Your task to perform on an android device: open app "McDonald's" Image 0: 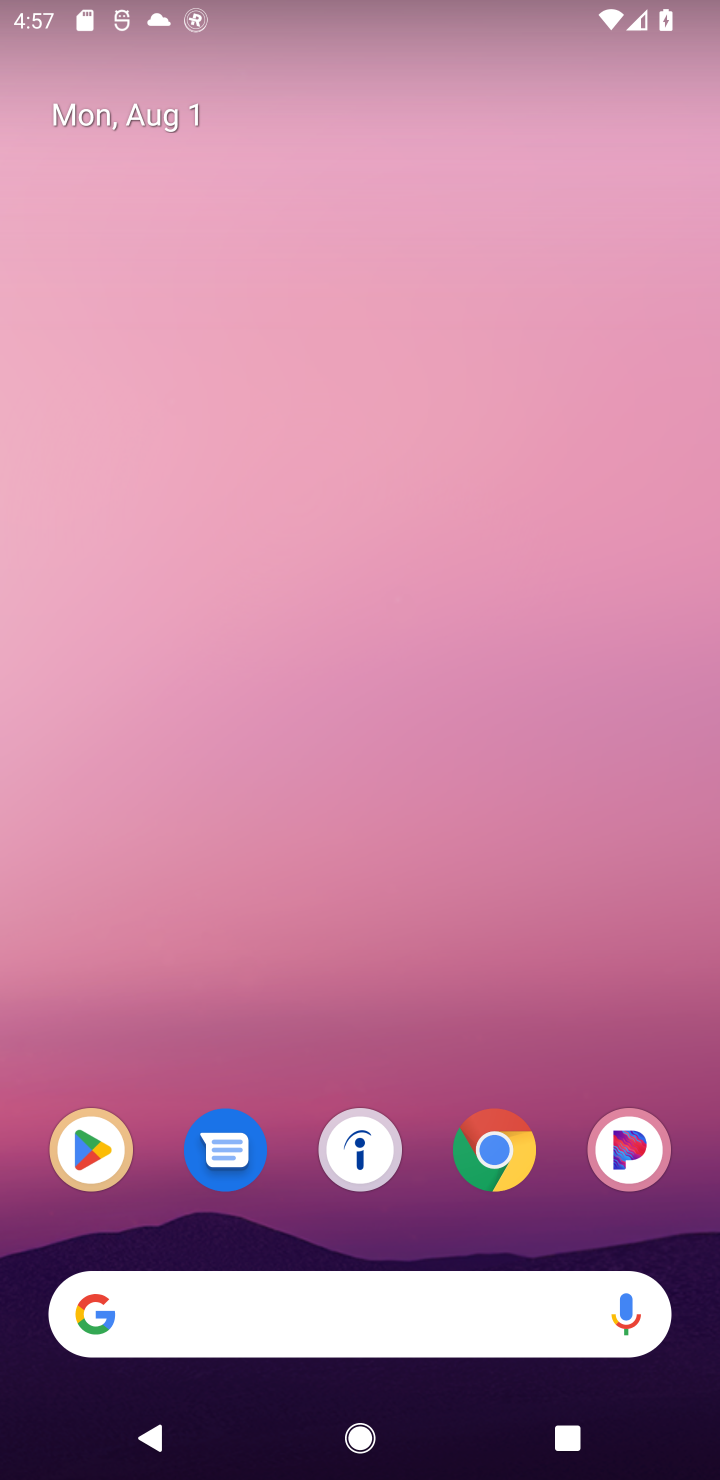
Step 0: click (598, 224)
Your task to perform on an android device: open app "McDonald's" Image 1: 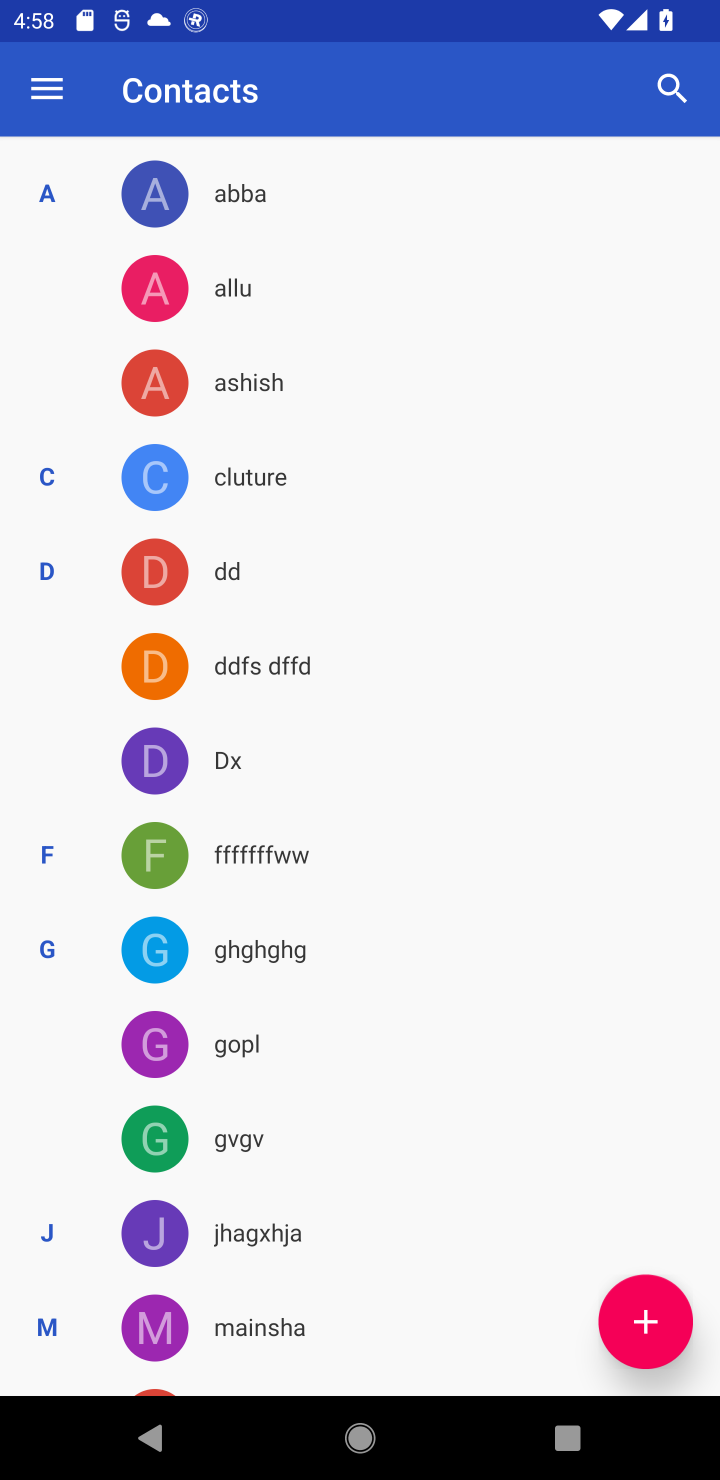
Step 1: press home button
Your task to perform on an android device: open app "McDonald's" Image 2: 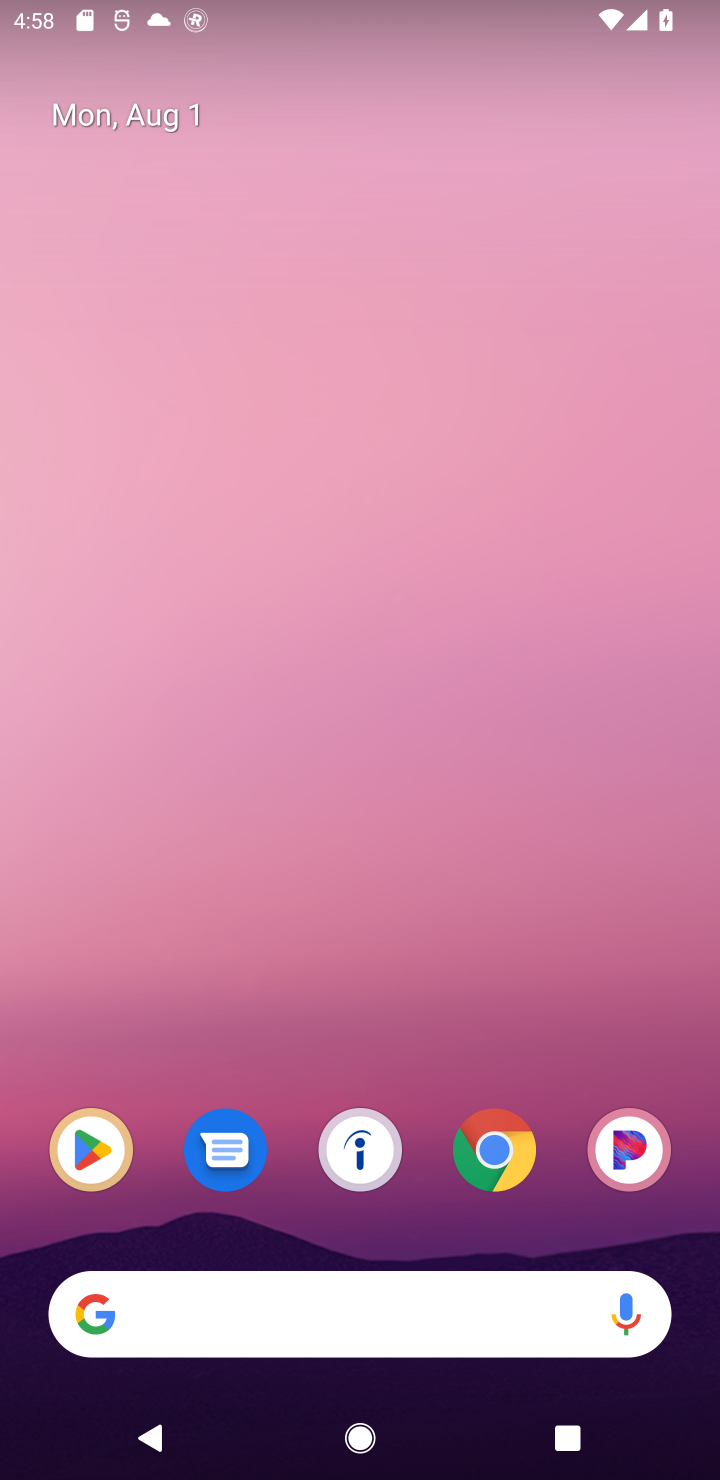
Step 2: drag from (297, 1233) to (394, 40)
Your task to perform on an android device: open app "McDonald's" Image 3: 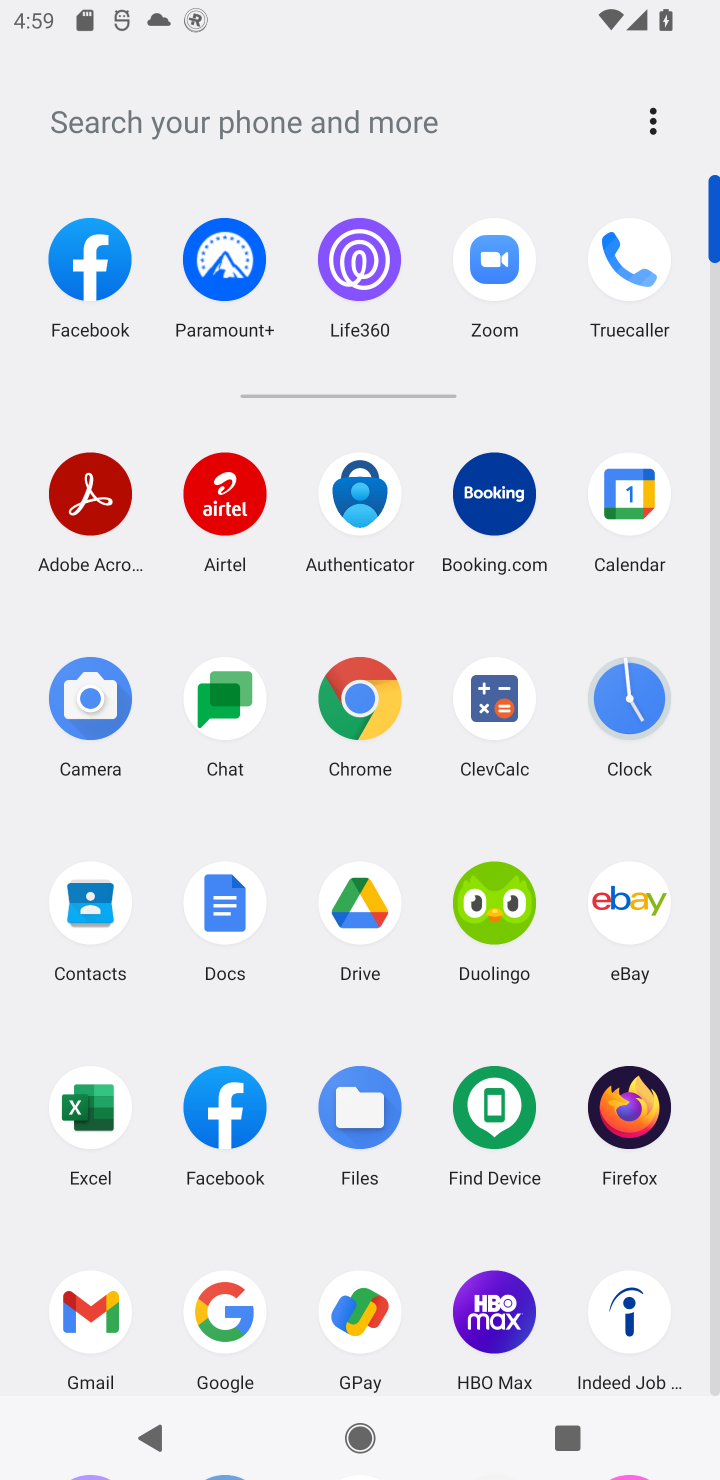
Step 3: click (399, 148)
Your task to perform on an android device: open app "McDonald's" Image 4: 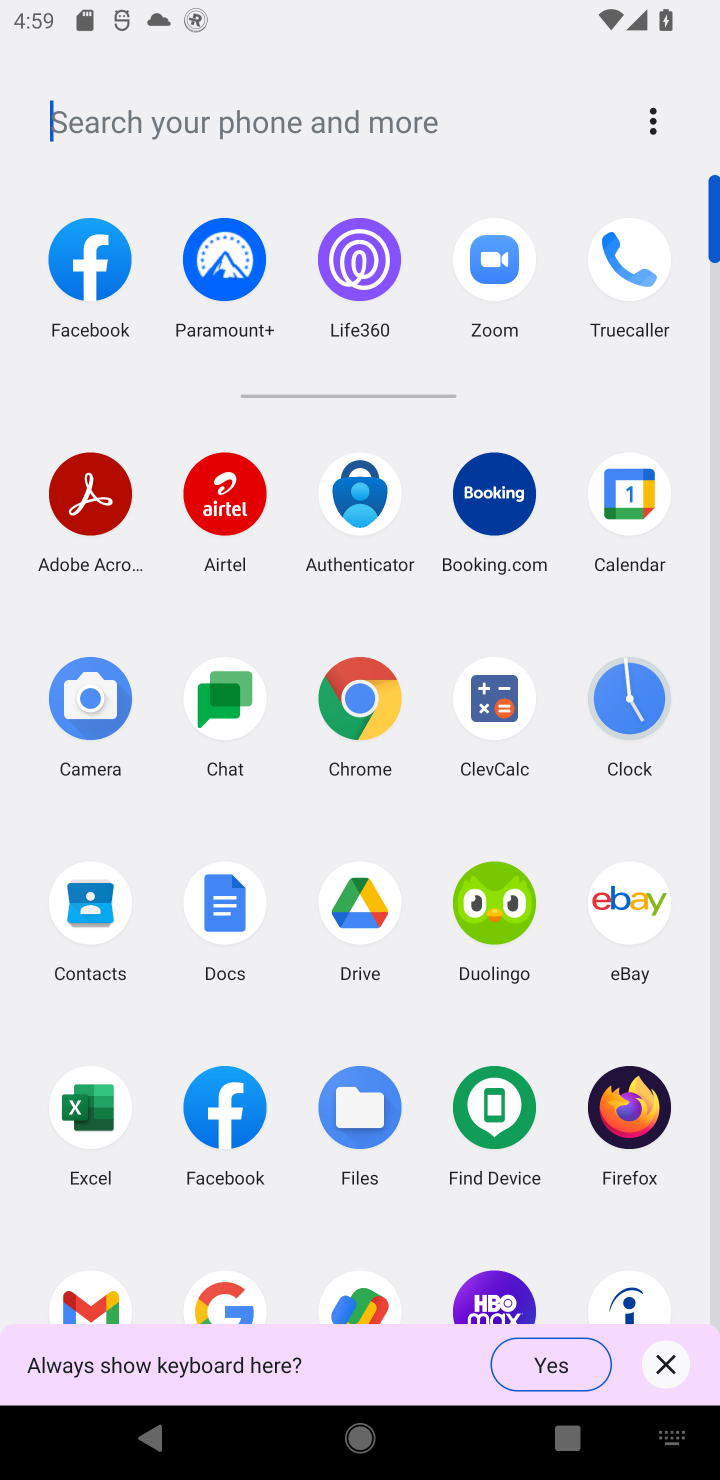
Step 4: click (399, 148)
Your task to perform on an android device: open app "McDonald's" Image 5: 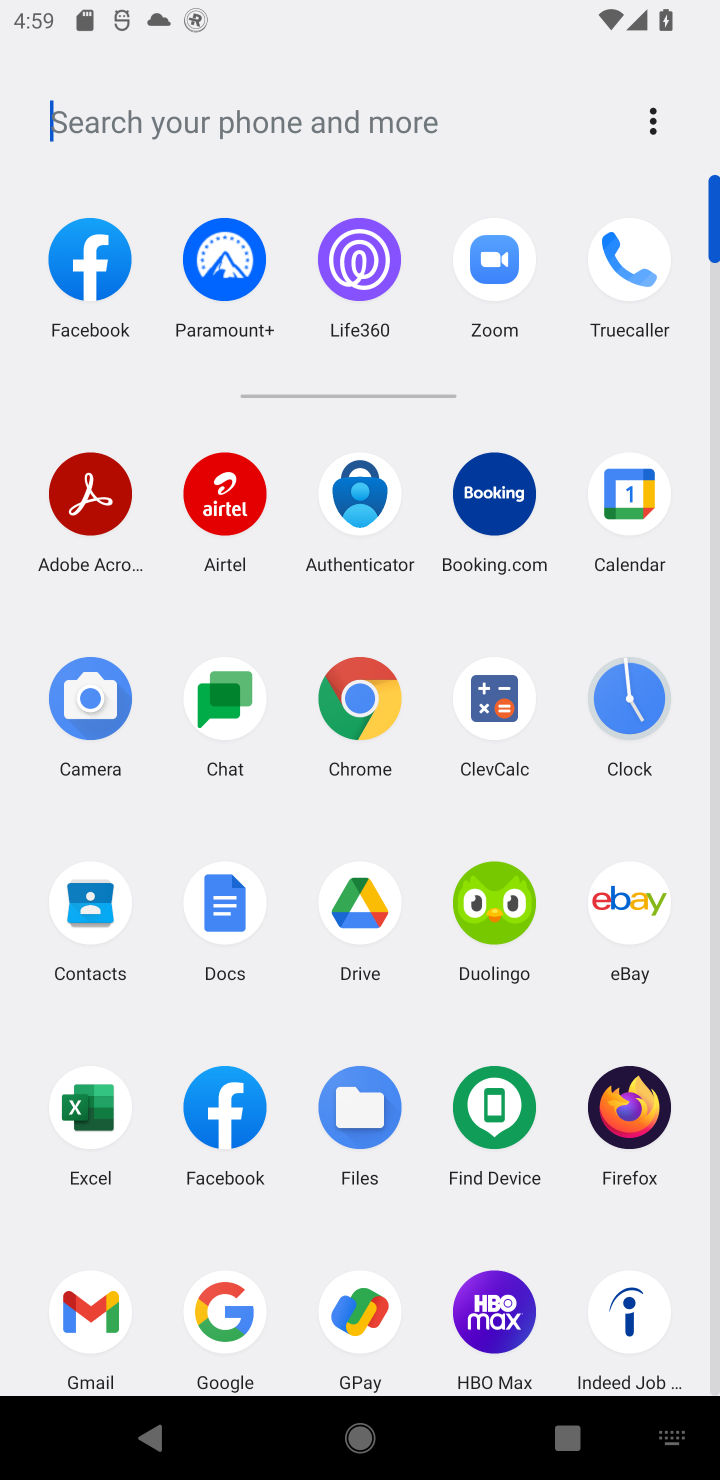
Step 5: type "mcdoland"
Your task to perform on an android device: open app "McDonald's" Image 6: 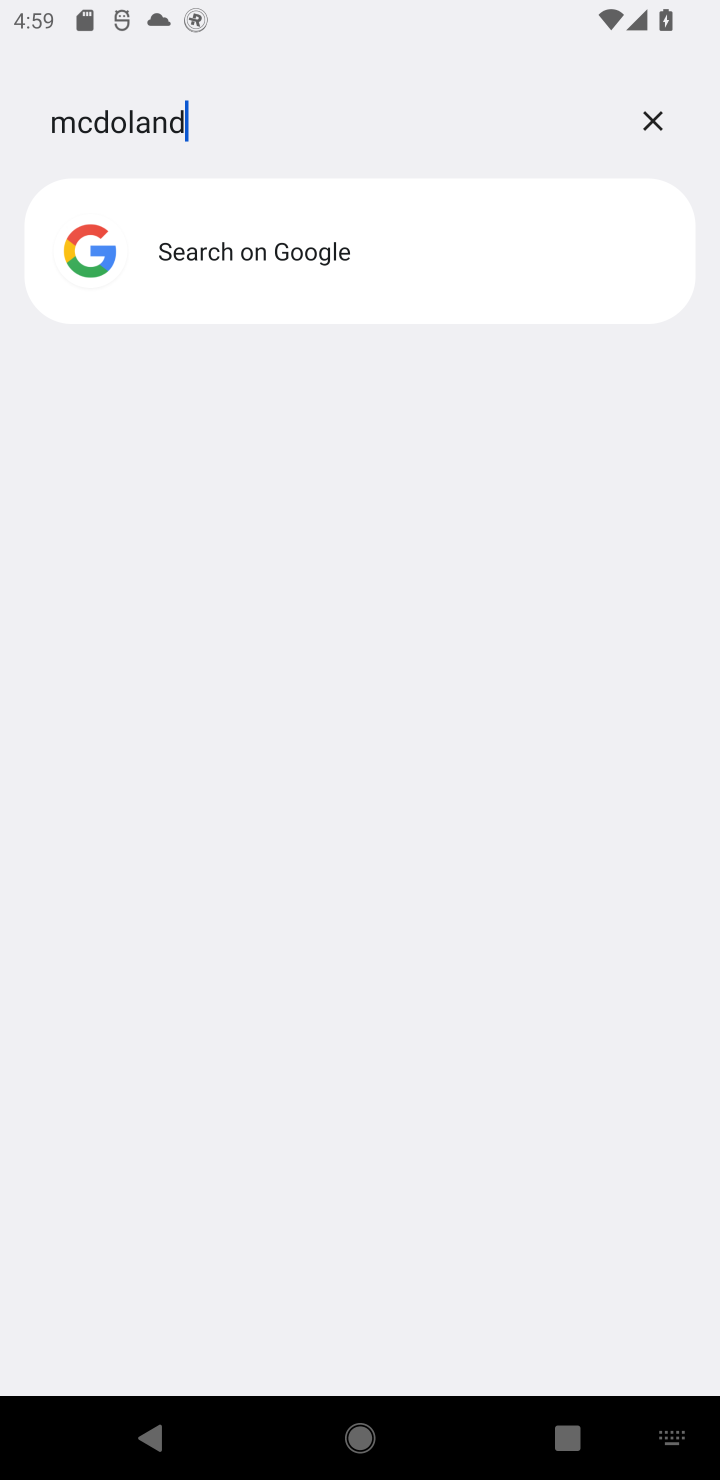
Step 6: click (412, 163)
Your task to perform on an android device: open app "McDonald's" Image 7: 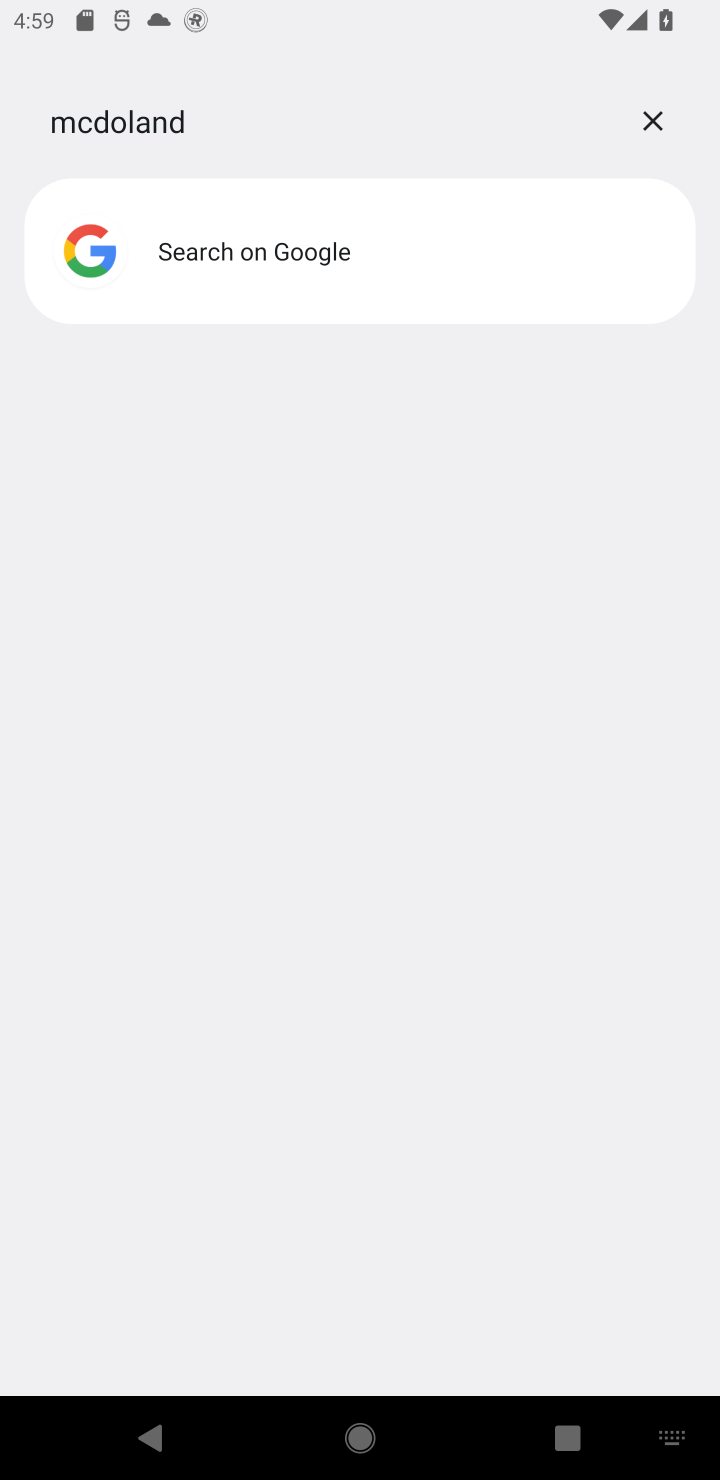
Step 7: click (412, 163)
Your task to perform on an android device: open app "McDonald's" Image 8: 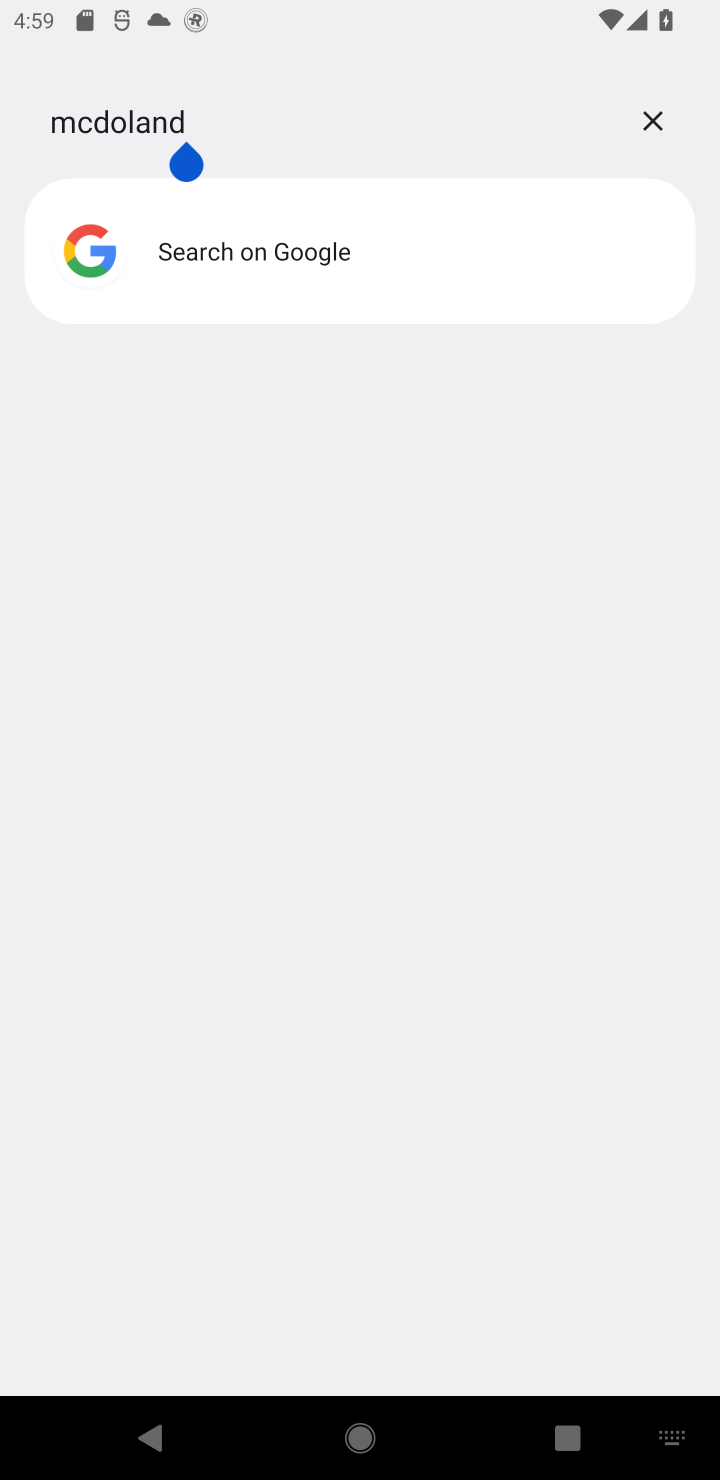
Step 8: click (662, 121)
Your task to perform on an android device: open app "McDonald's" Image 9: 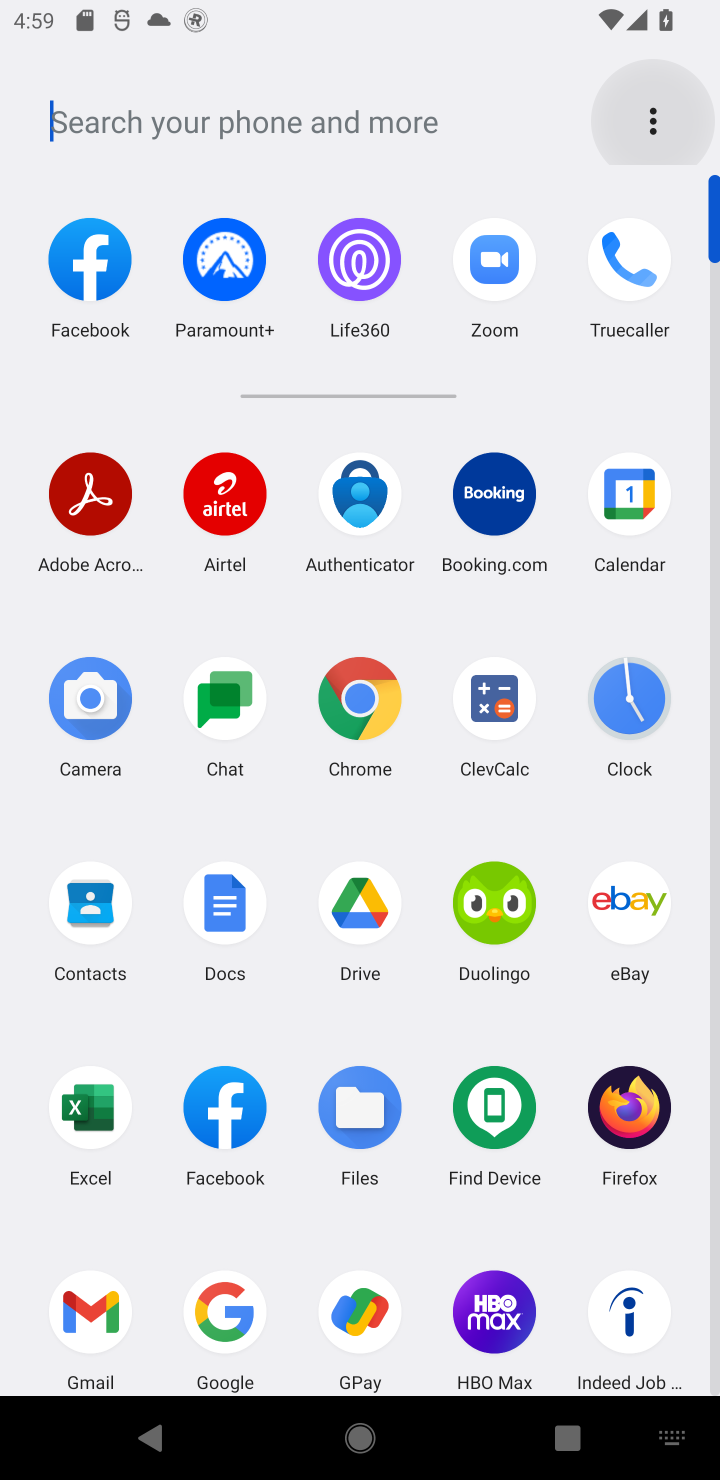
Step 9: click (662, 121)
Your task to perform on an android device: open app "McDonald's" Image 10: 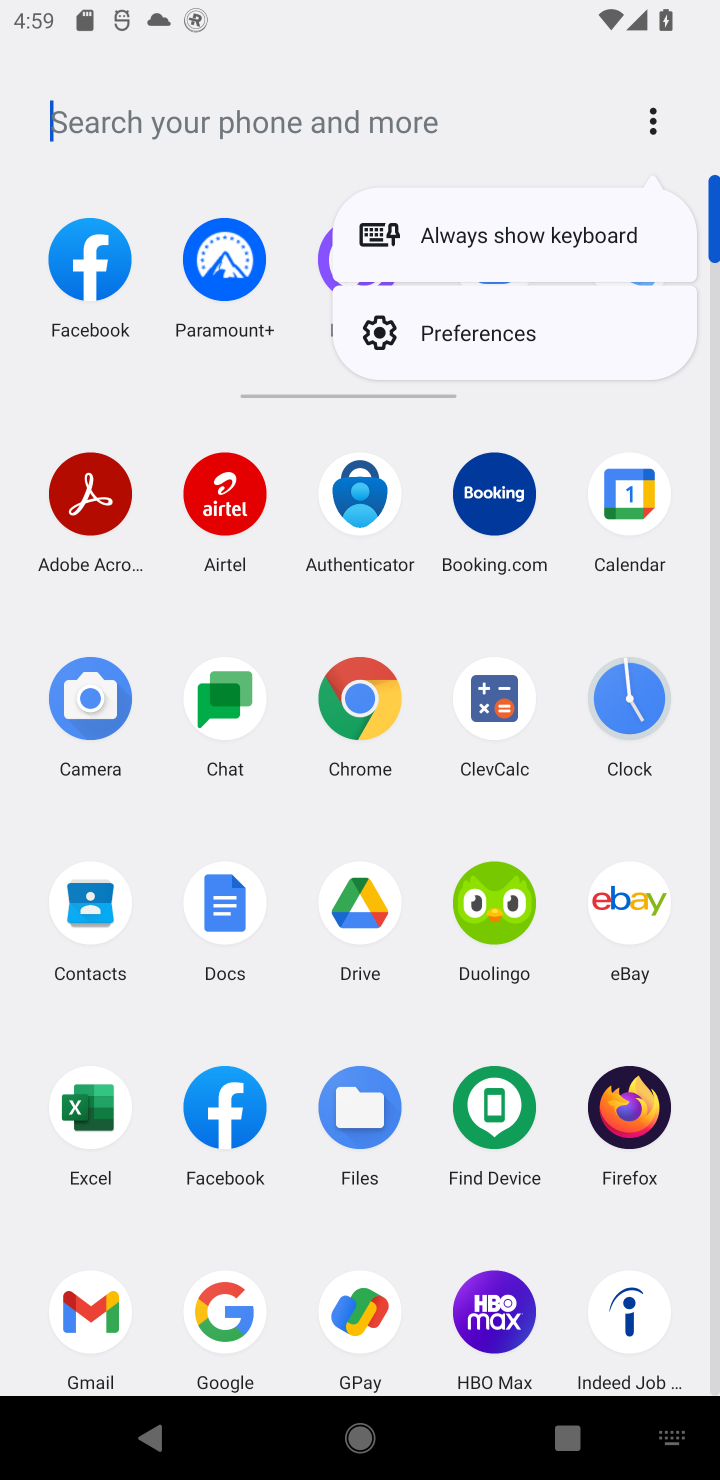
Step 10: click (466, 125)
Your task to perform on an android device: open app "McDonald's" Image 11: 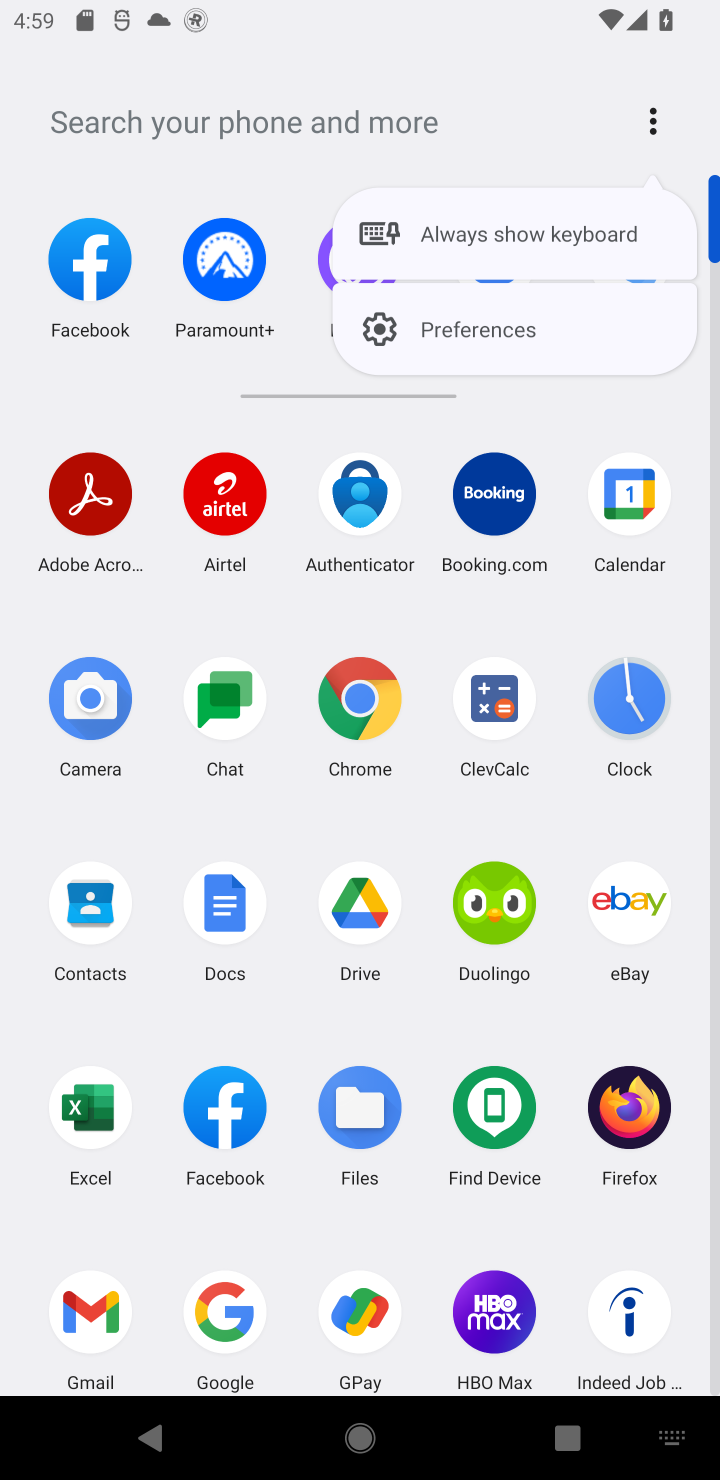
Step 11: click (466, 125)
Your task to perform on an android device: open app "McDonald's" Image 12: 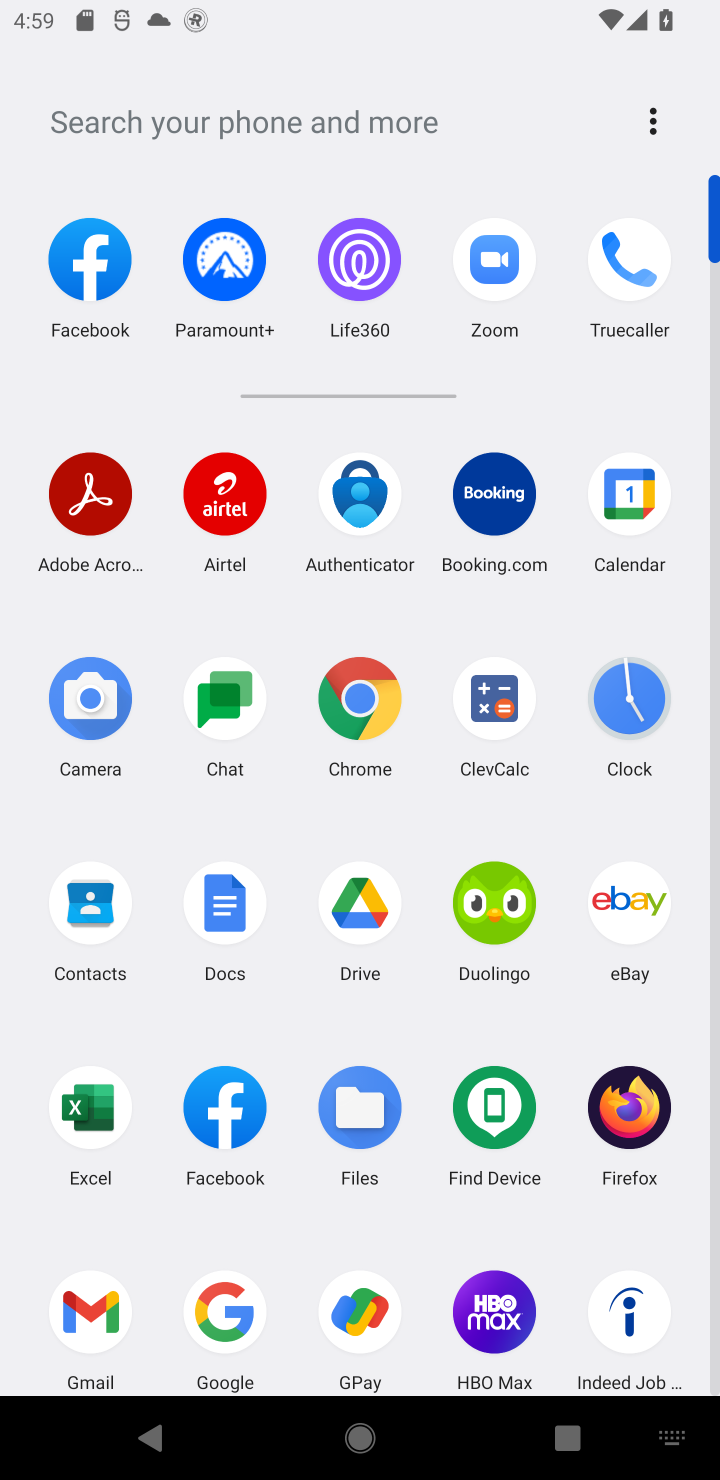
Step 12: type "mcdoland"
Your task to perform on an android device: open app "McDonald's" Image 13: 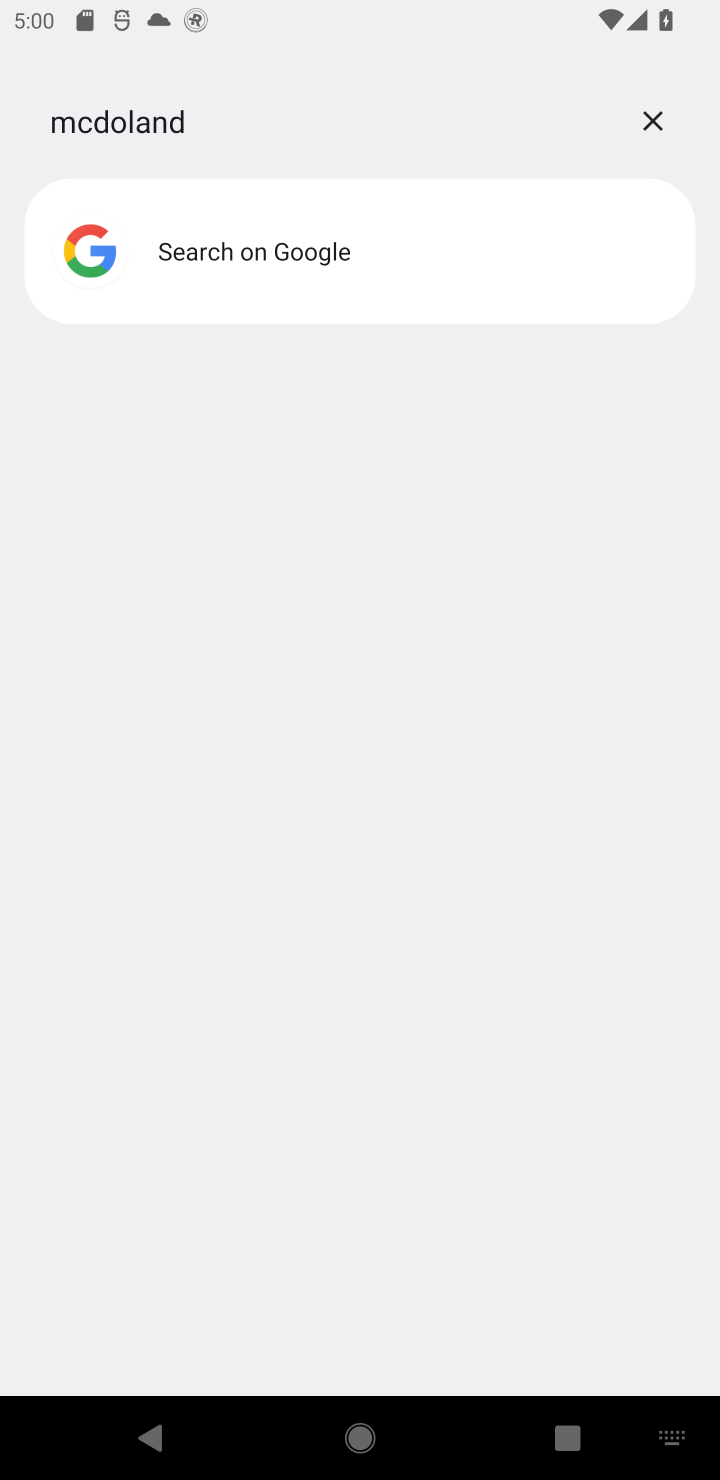
Step 13: click (660, 122)
Your task to perform on an android device: open app "McDonald's" Image 14: 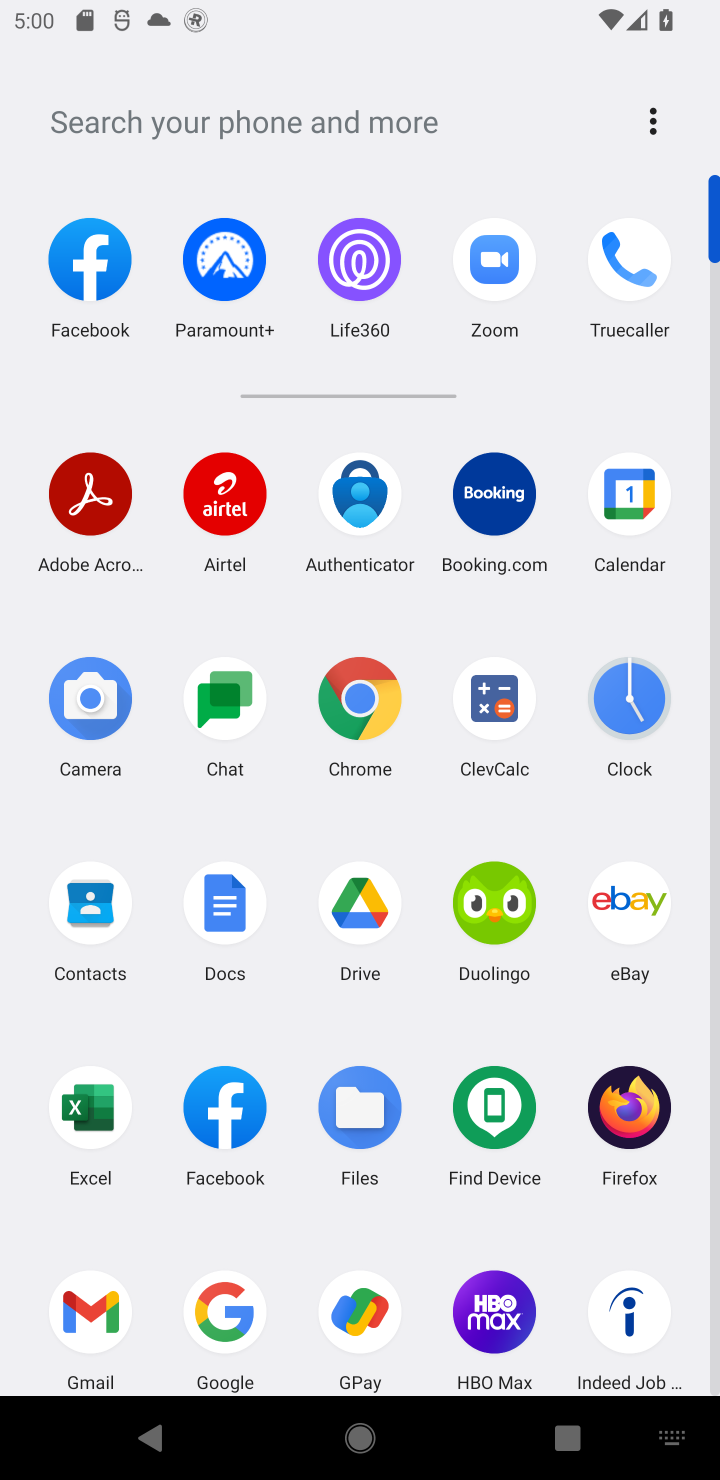
Step 14: click (463, 134)
Your task to perform on an android device: open app "McDonald's" Image 15: 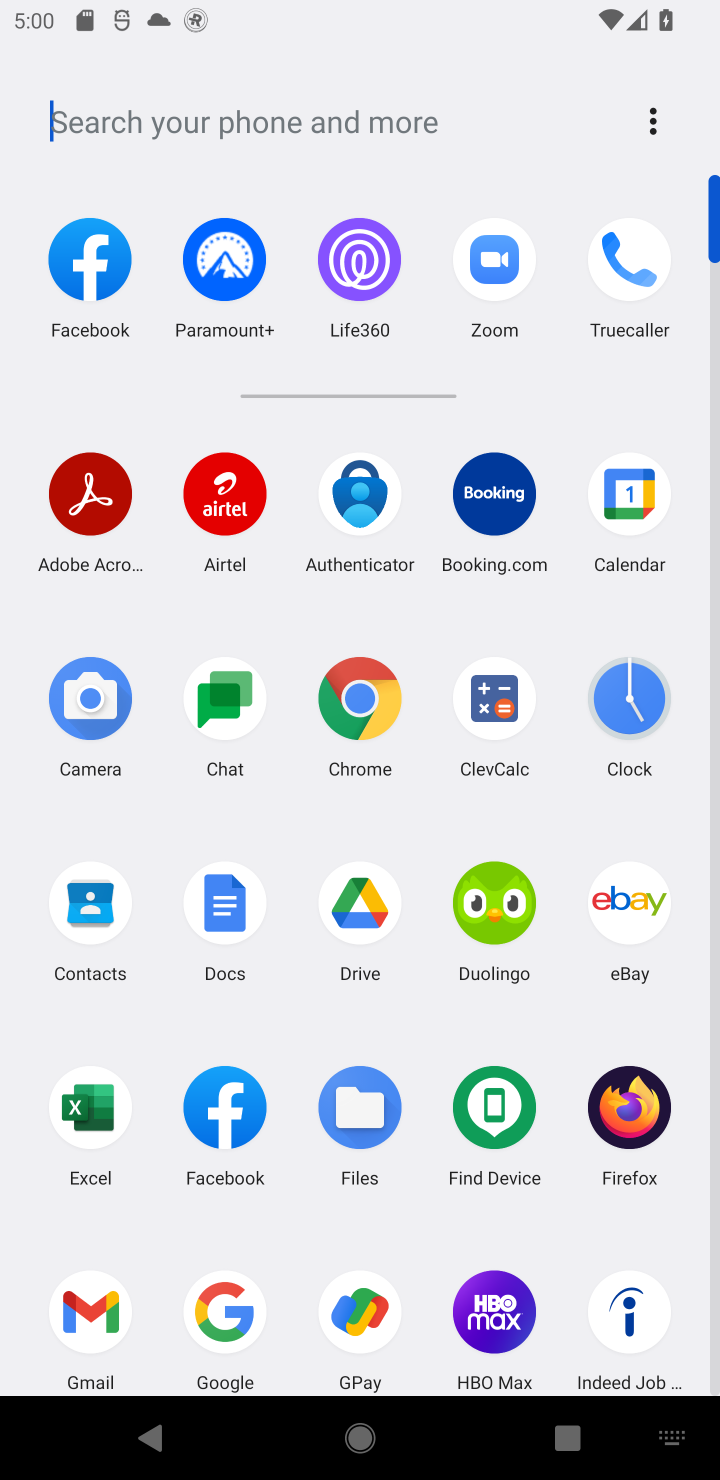
Step 15: type ""
Your task to perform on an android device: open app "McDonald's" Image 16: 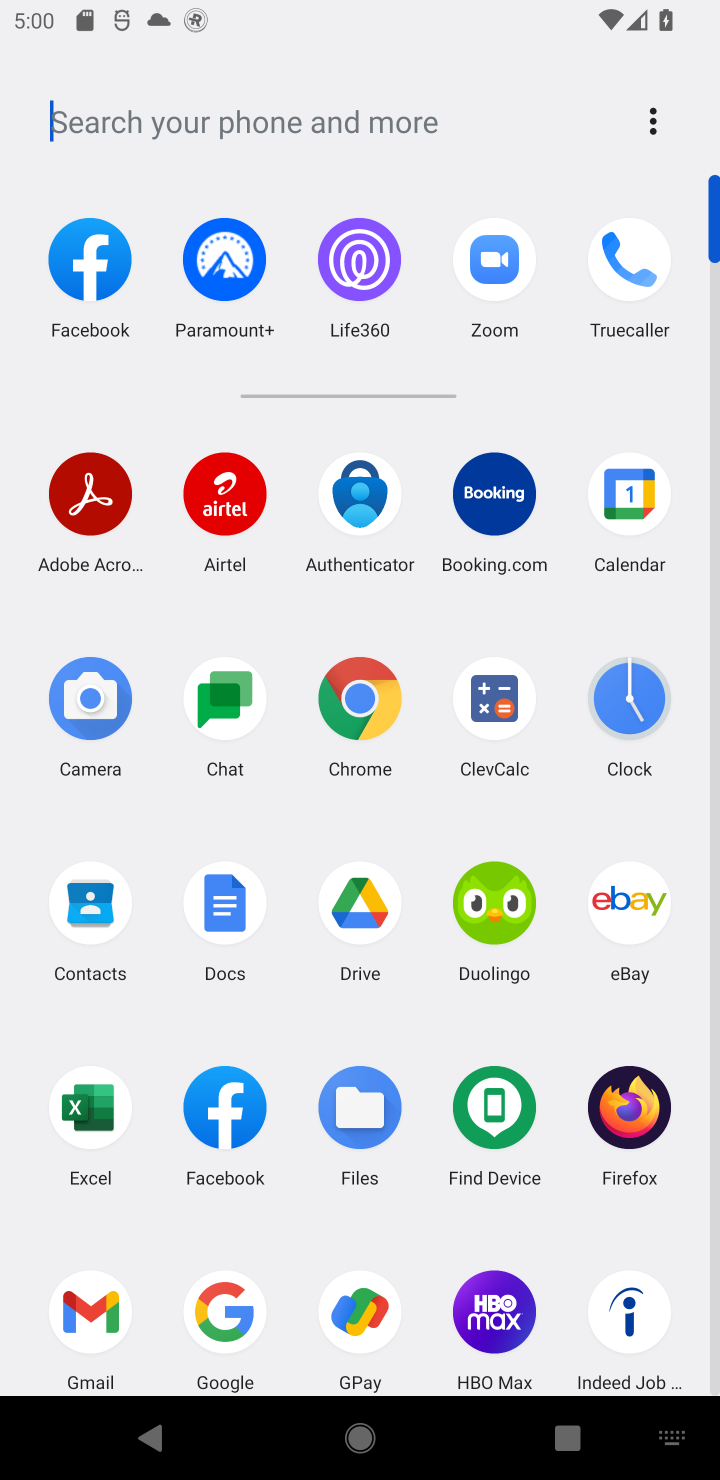
Step 16: type "mc"
Your task to perform on an android device: open app "McDonald's" Image 17: 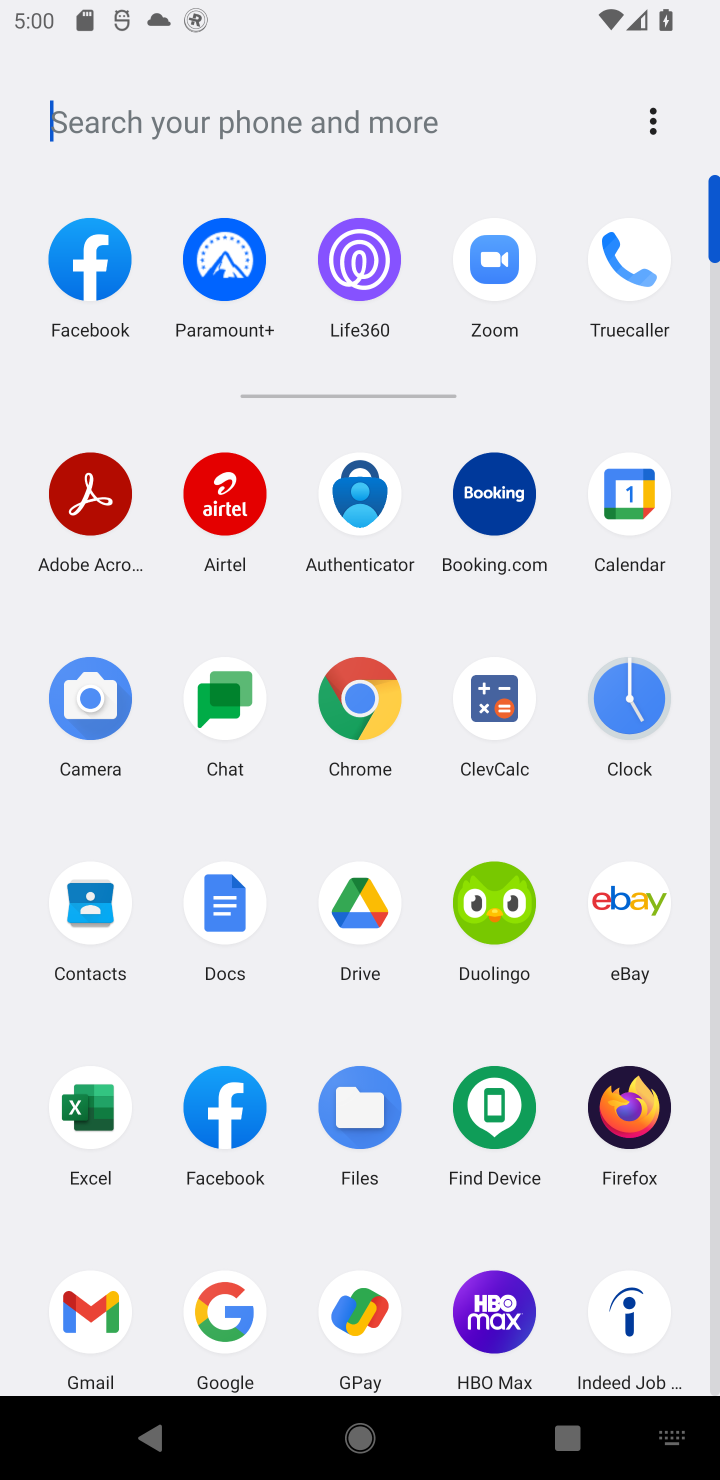
Step 17: click (424, 140)
Your task to perform on an android device: open app "McDonald's" Image 18: 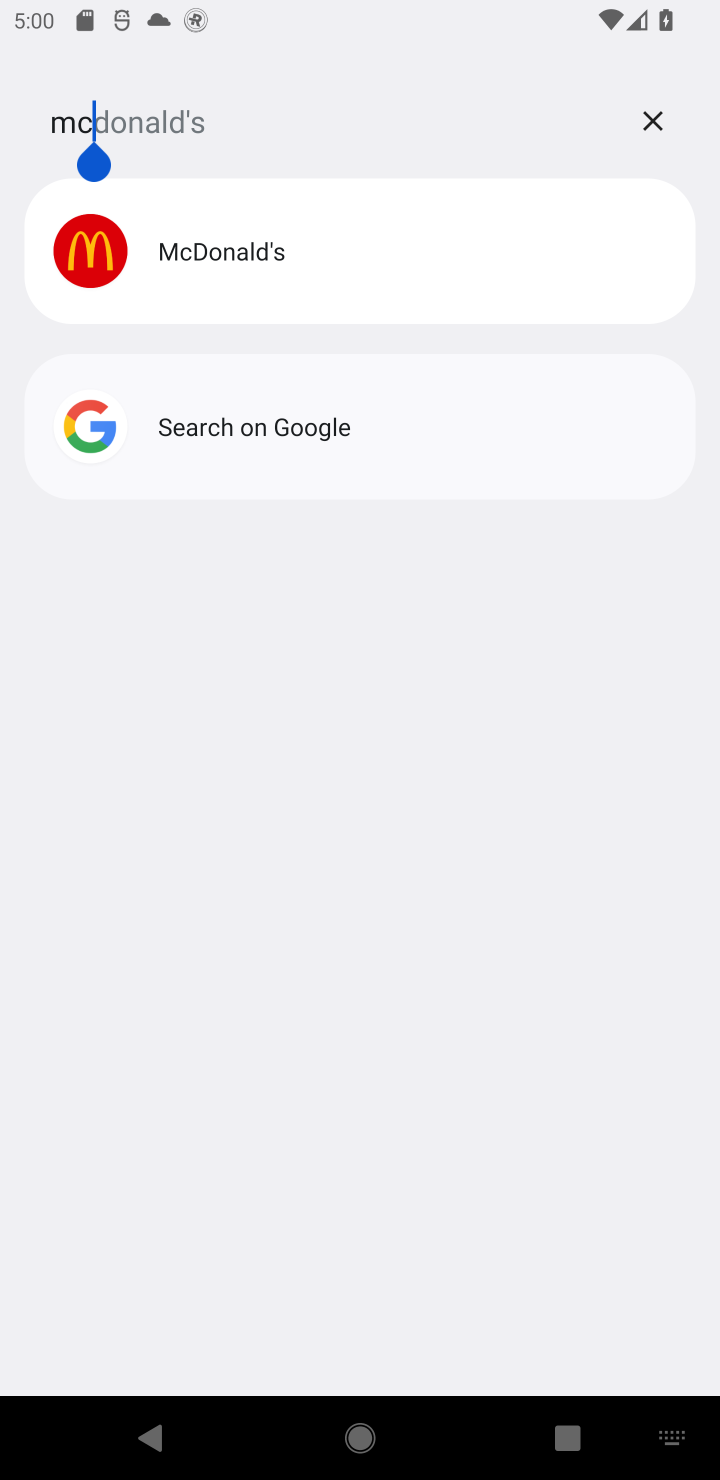
Step 18: click (270, 269)
Your task to perform on an android device: open app "McDonald's" Image 19: 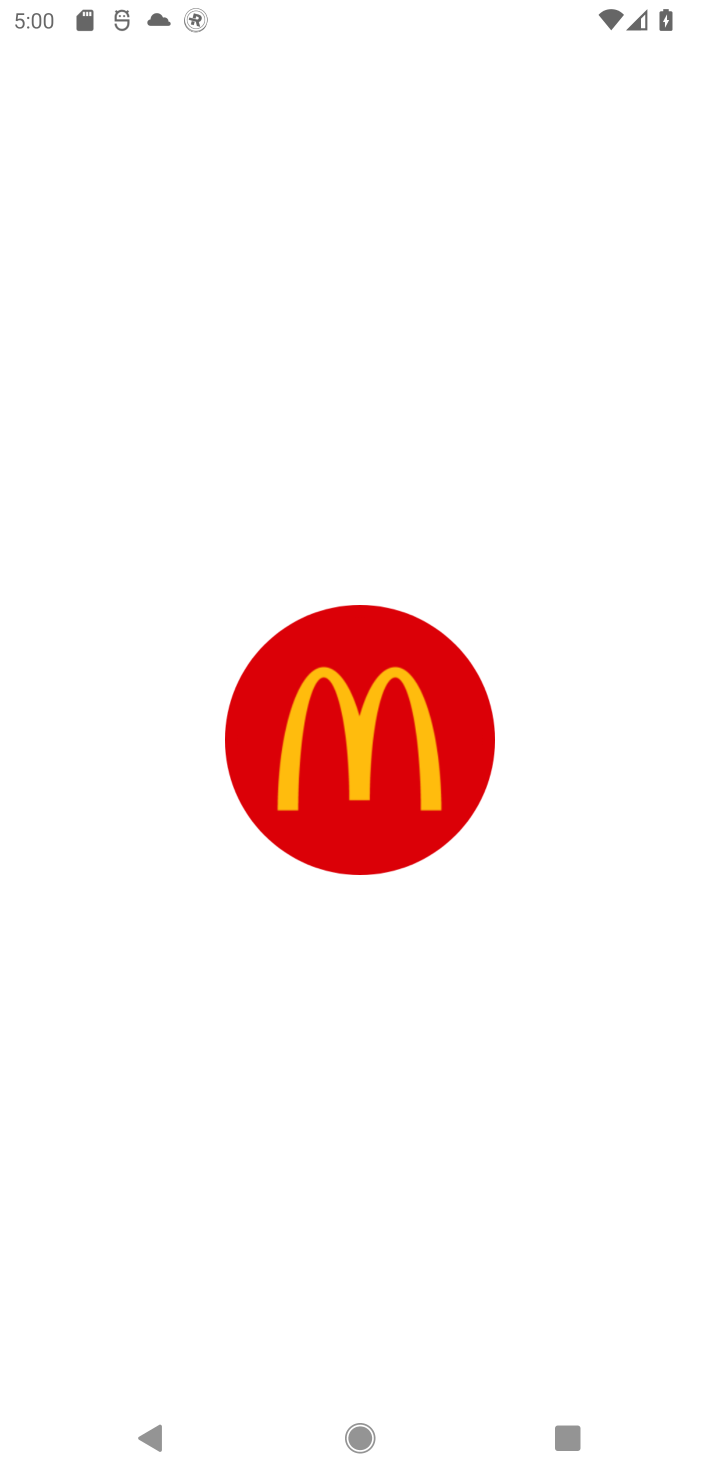
Step 19: task complete